Your task to perform on an android device: toggle notifications settings in the gmail app Image 0: 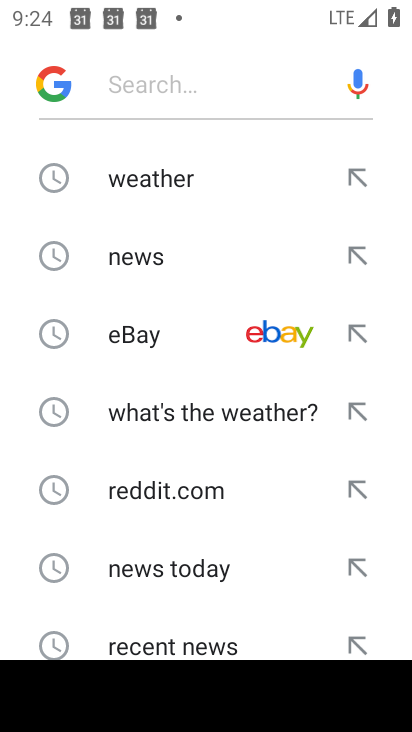
Step 0: press back button
Your task to perform on an android device: toggle notifications settings in the gmail app Image 1: 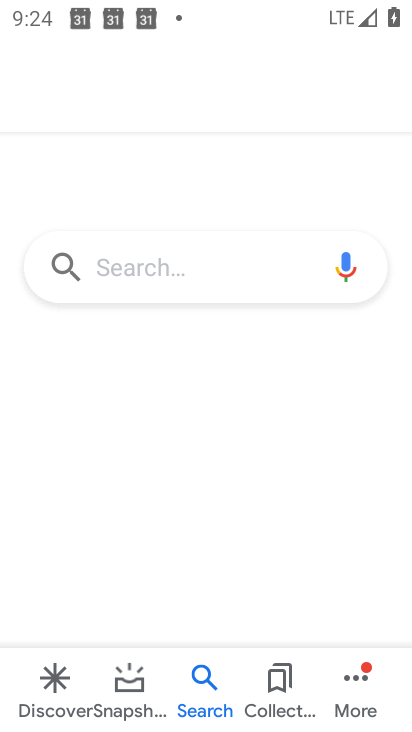
Step 1: press back button
Your task to perform on an android device: toggle notifications settings in the gmail app Image 2: 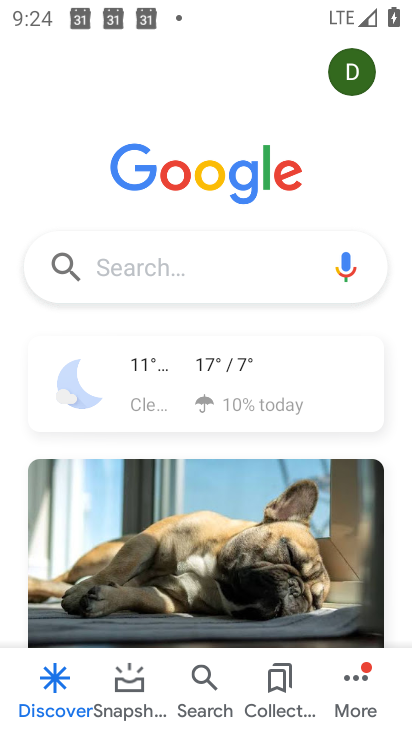
Step 2: press back button
Your task to perform on an android device: toggle notifications settings in the gmail app Image 3: 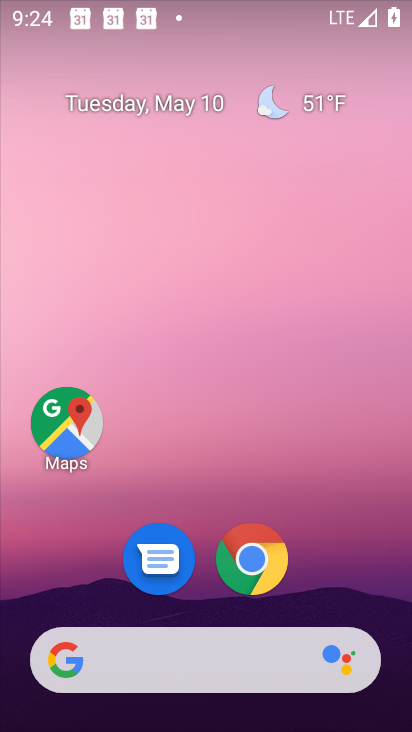
Step 3: drag from (336, 561) to (282, 94)
Your task to perform on an android device: toggle notifications settings in the gmail app Image 4: 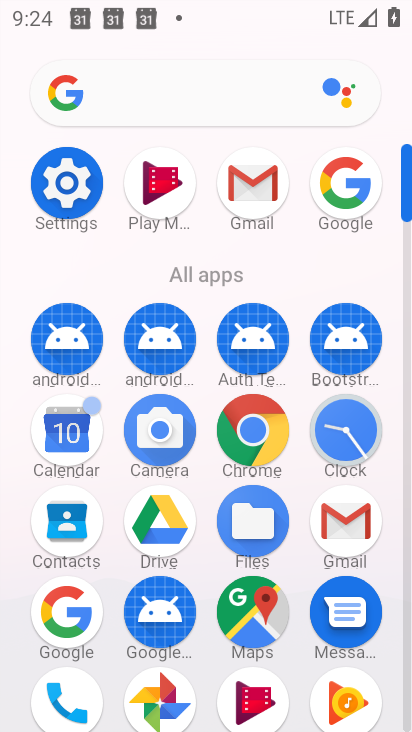
Step 4: click (253, 183)
Your task to perform on an android device: toggle notifications settings in the gmail app Image 5: 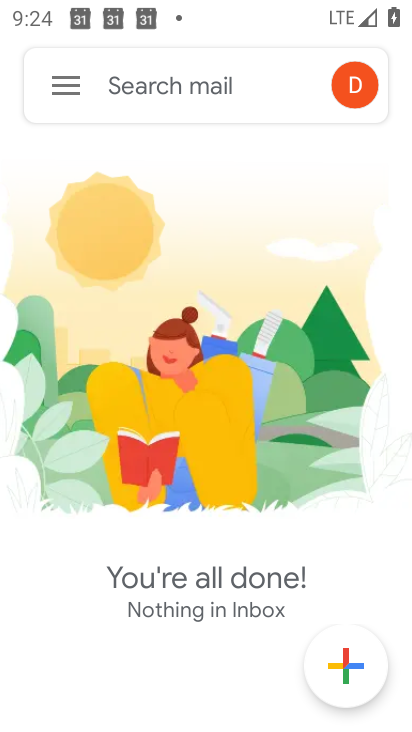
Step 5: click (62, 83)
Your task to perform on an android device: toggle notifications settings in the gmail app Image 6: 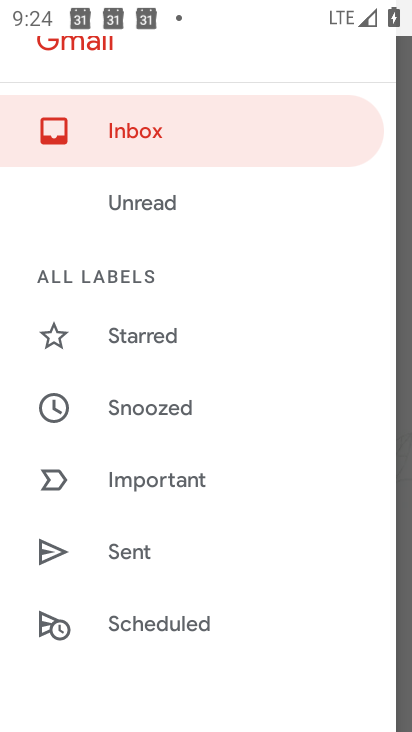
Step 6: drag from (160, 448) to (193, 332)
Your task to perform on an android device: toggle notifications settings in the gmail app Image 7: 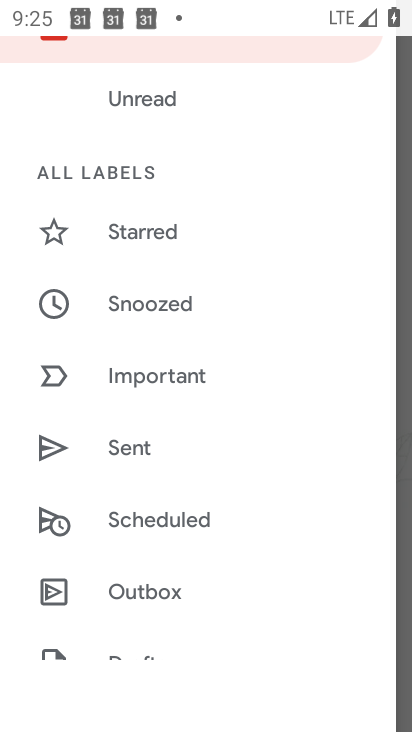
Step 7: drag from (145, 483) to (183, 380)
Your task to perform on an android device: toggle notifications settings in the gmail app Image 8: 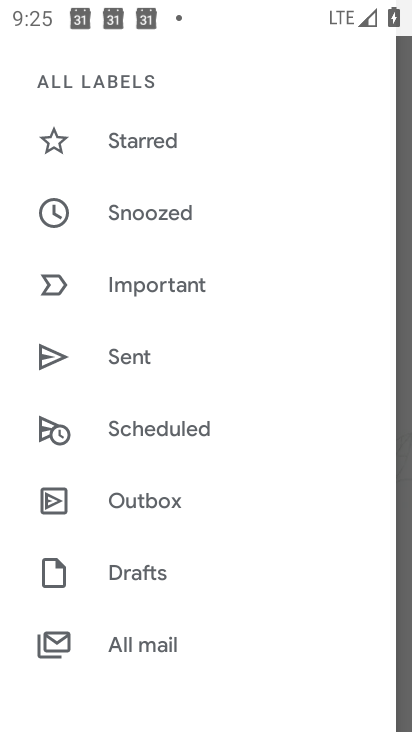
Step 8: drag from (144, 468) to (202, 371)
Your task to perform on an android device: toggle notifications settings in the gmail app Image 9: 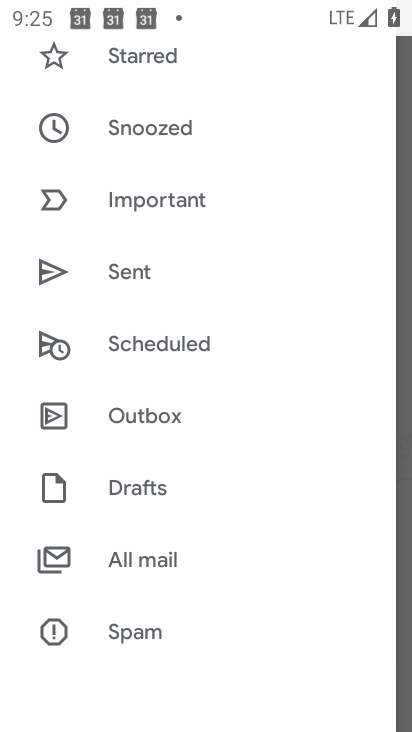
Step 9: drag from (141, 518) to (207, 391)
Your task to perform on an android device: toggle notifications settings in the gmail app Image 10: 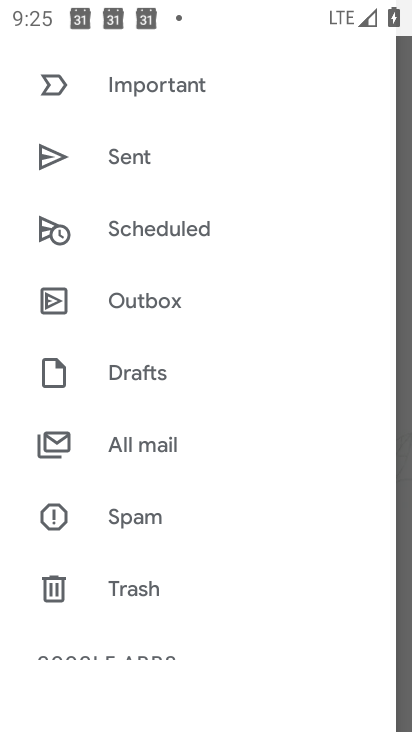
Step 10: drag from (144, 547) to (219, 405)
Your task to perform on an android device: toggle notifications settings in the gmail app Image 11: 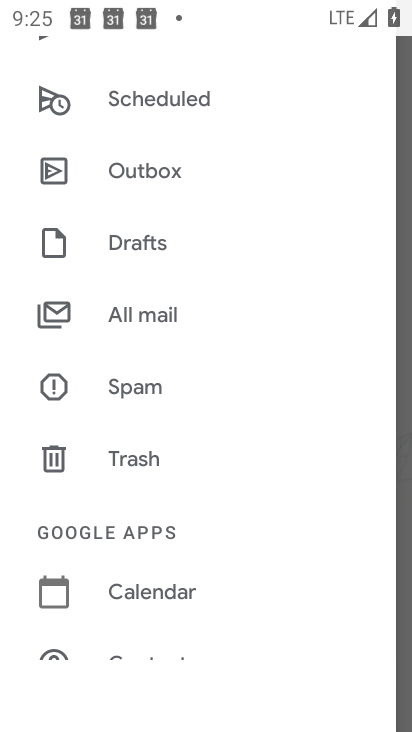
Step 11: drag from (154, 502) to (227, 399)
Your task to perform on an android device: toggle notifications settings in the gmail app Image 12: 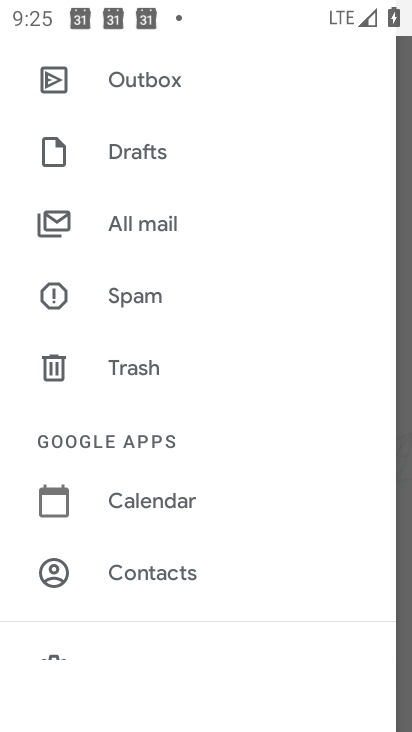
Step 12: drag from (148, 544) to (232, 382)
Your task to perform on an android device: toggle notifications settings in the gmail app Image 13: 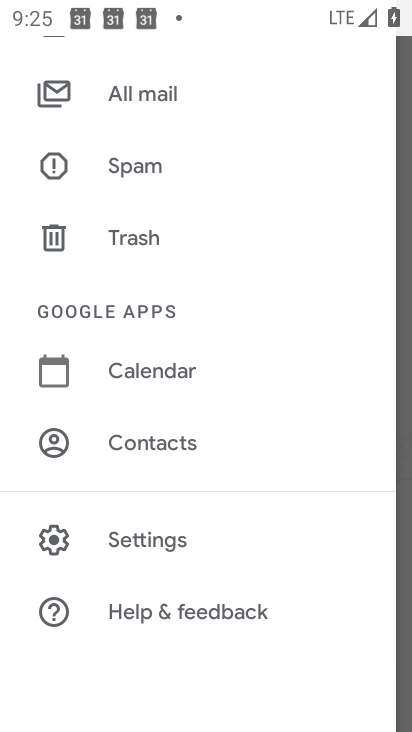
Step 13: click (165, 539)
Your task to perform on an android device: toggle notifications settings in the gmail app Image 14: 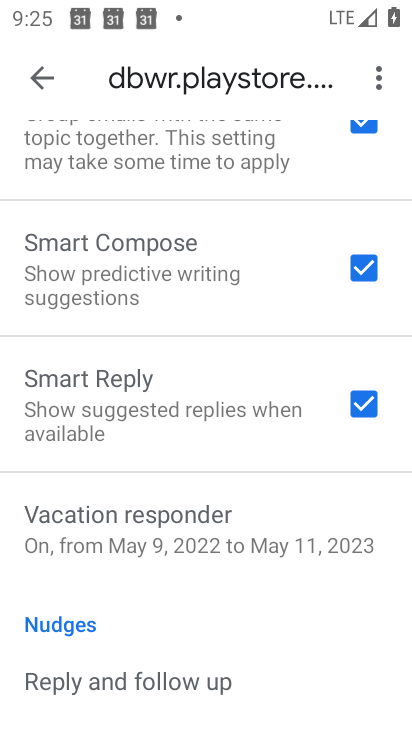
Step 14: drag from (242, 327) to (235, 507)
Your task to perform on an android device: toggle notifications settings in the gmail app Image 15: 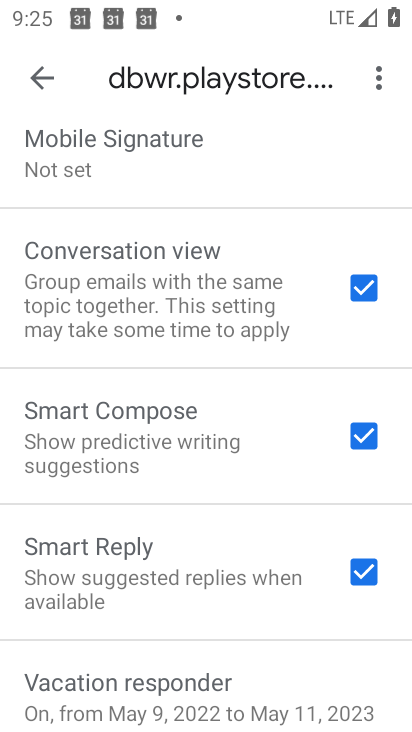
Step 15: drag from (253, 234) to (204, 390)
Your task to perform on an android device: toggle notifications settings in the gmail app Image 16: 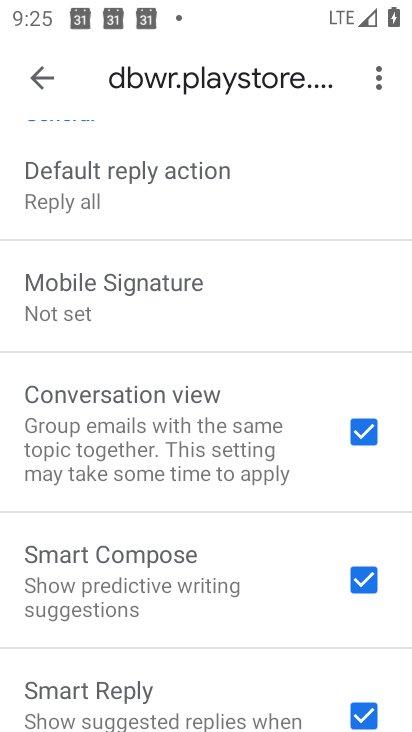
Step 16: drag from (219, 192) to (206, 356)
Your task to perform on an android device: toggle notifications settings in the gmail app Image 17: 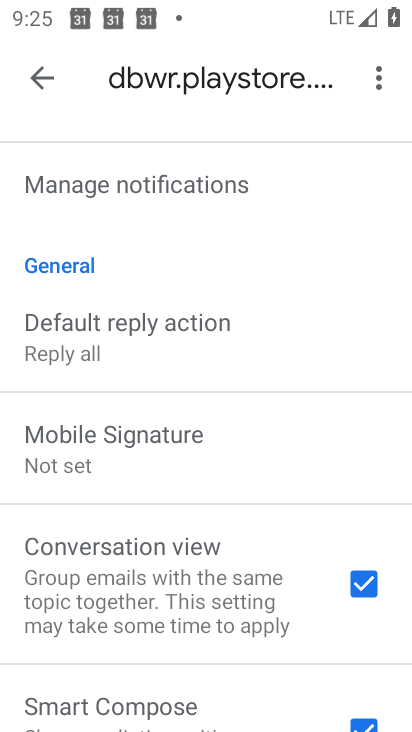
Step 17: click (205, 184)
Your task to perform on an android device: toggle notifications settings in the gmail app Image 18: 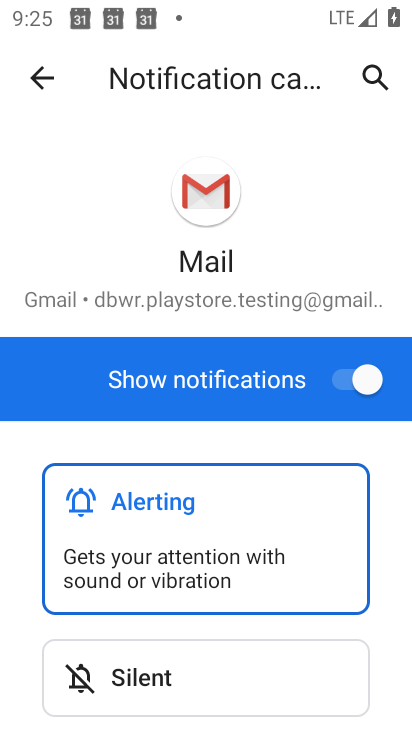
Step 18: click (370, 377)
Your task to perform on an android device: toggle notifications settings in the gmail app Image 19: 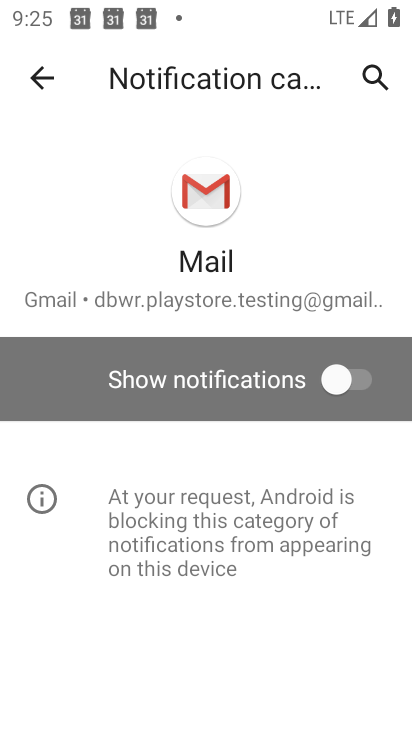
Step 19: task complete